Your task to perform on an android device: make emails show in primary in the gmail app Image 0: 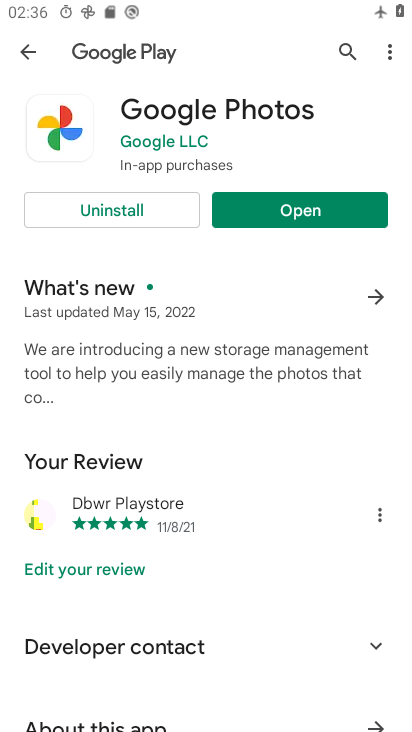
Step 0: press home button
Your task to perform on an android device: make emails show in primary in the gmail app Image 1: 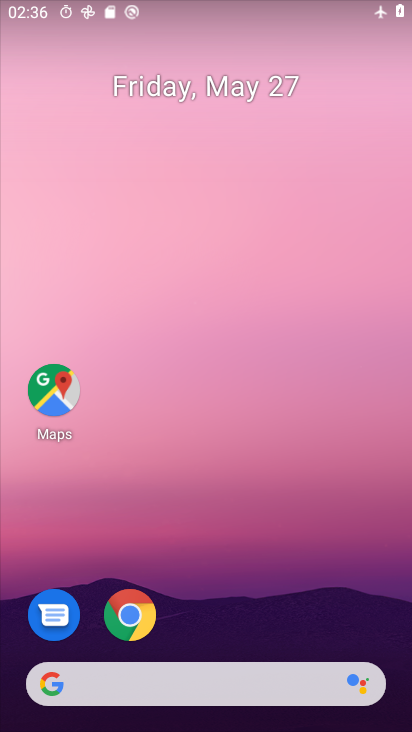
Step 1: drag from (370, 637) to (388, 241)
Your task to perform on an android device: make emails show in primary in the gmail app Image 2: 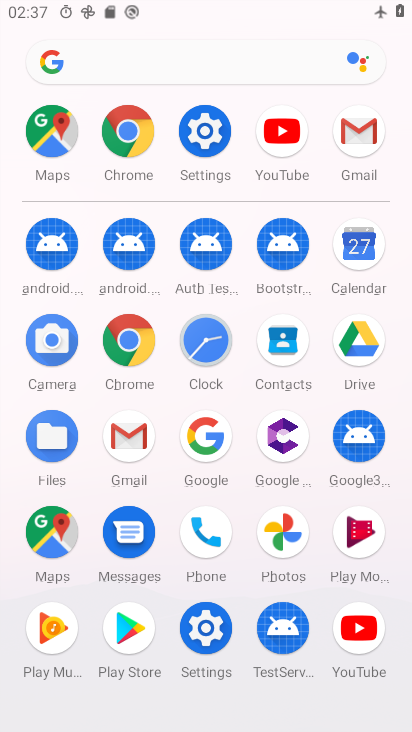
Step 2: click (118, 443)
Your task to perform on an android device: make emails show in primary in the gmail app Image 3: 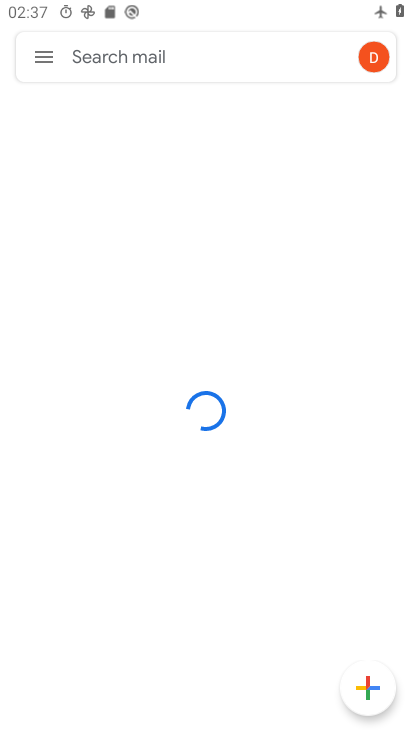
Step 3: click (43, 66)
Your task to perform on an android device: make emails show in primary in the gmail app Image 4: 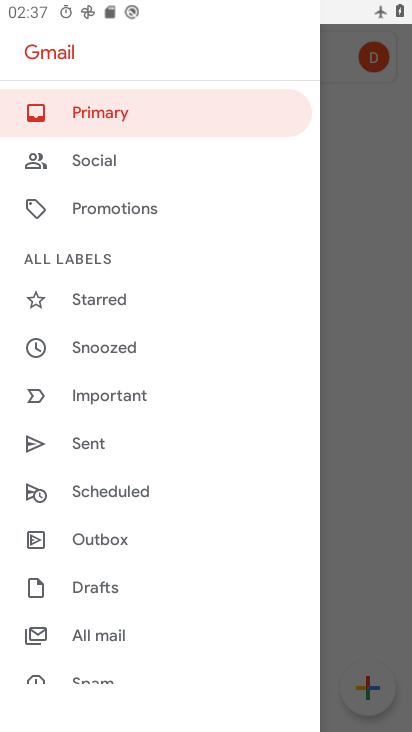
Step 4: drag from (186, 398) to (209, 293)
Your task to perform on an android device: make emails show in primary in the gmail app Image 5: 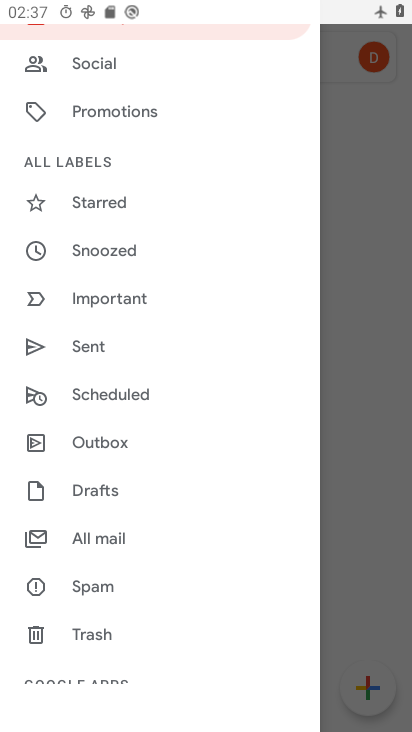
Step 5: drag from (220, 427) to (230, 333)
Your task to perform on an android device: make emails show in primary in the gmail app Image 6: 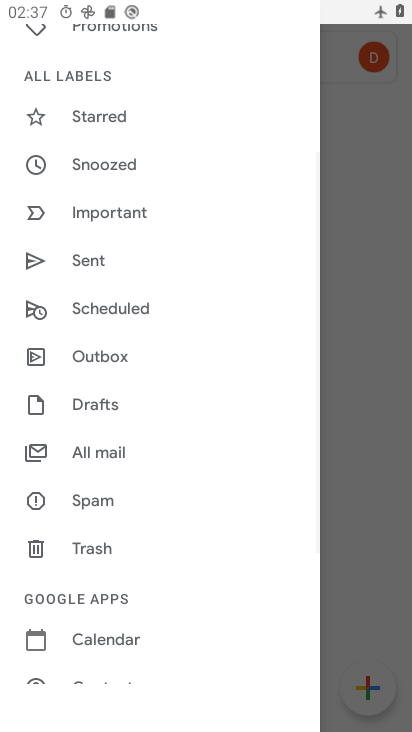
Step 6: drag from (227, 423) to (227, 337)
Your task to perform on an android device: make emails show in primary in the gmail app Image 7: 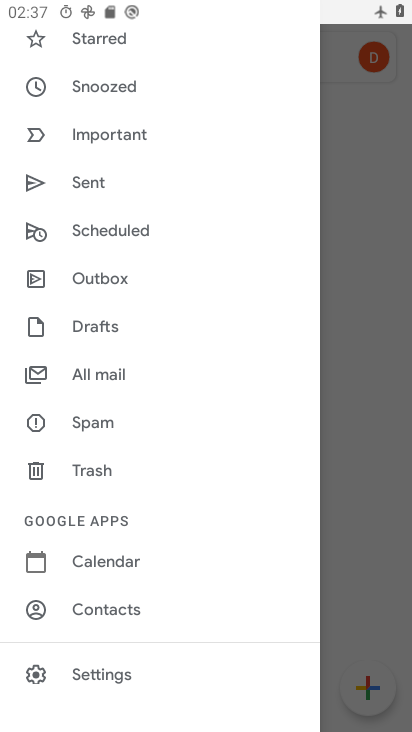
Step 7: drag from (229, 441) to (234, 364)
Your task to perform on an android device: make emails show in primary in the gmail app Image 8: 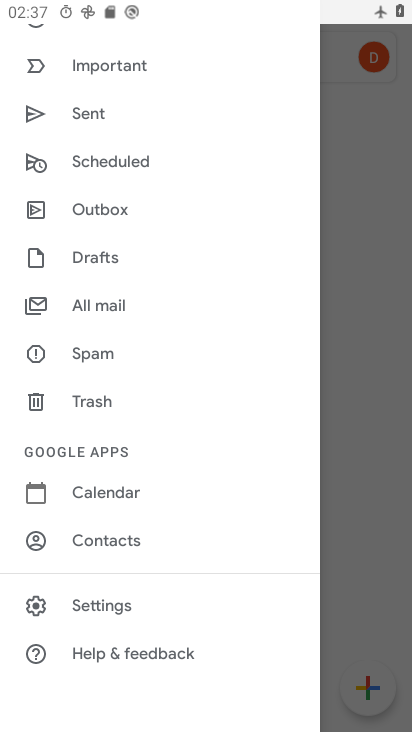
Step 8: drag from (227, 459) to (233, 328)
Your task to perform on an android device: make emails show in primary in the gmail app Image 9: 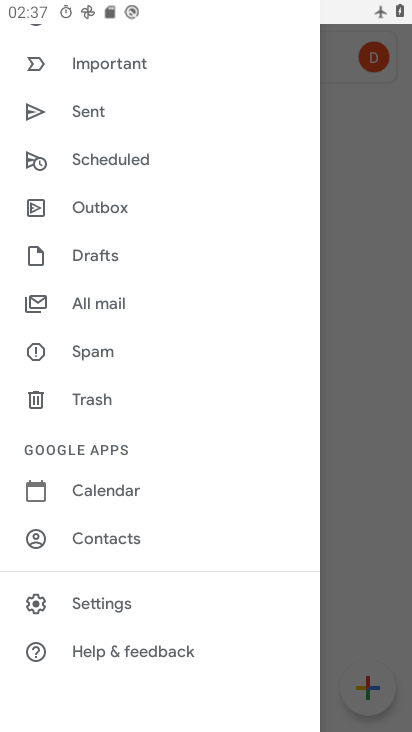
Step 9: click (133, 611)
Your task to perform on an android device: make emails show in primary in the gmail app Image 10: 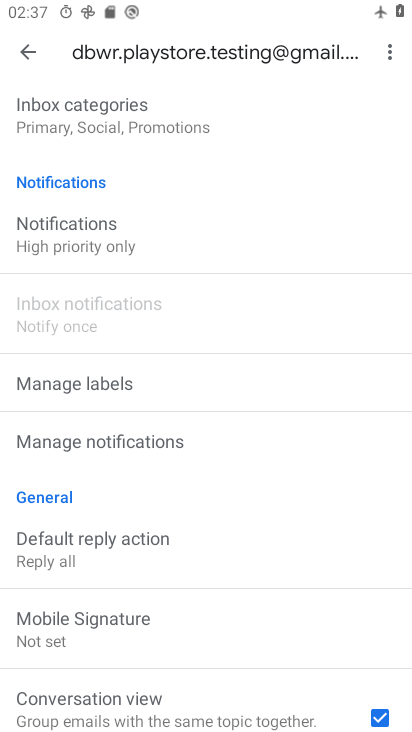
Step 10: drag from (289, 259) to (288, 373)
Your task to perform on an android device: make emails show in primary in the gmail app Image 11: 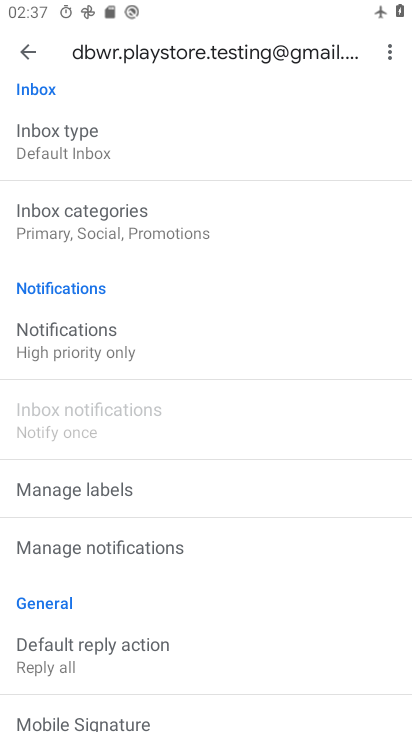
Step 11: drag from (282, 225) to (278, 348)
Your task to perform on an android device: make emails show in primary in the gmail app Image 12: 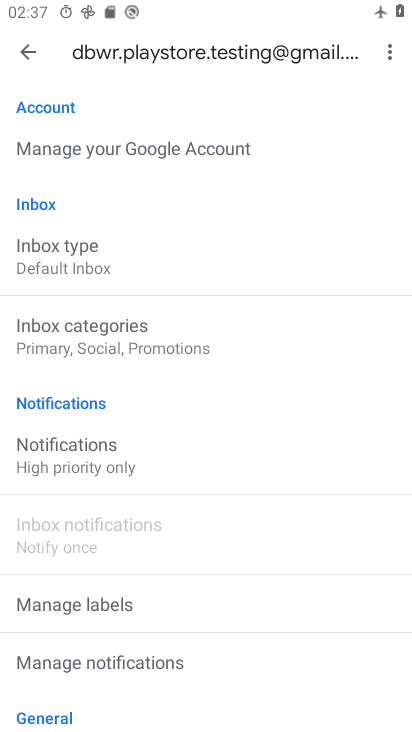
Step 12: drag from (287, 300) to (293, 427)
Your task to perform on an android device: make emails show in primary in the gmail app Image 13: 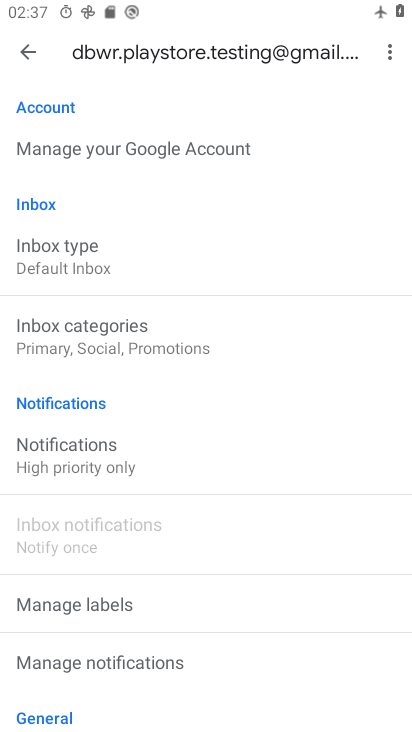
Step 13: click (182, 350)
Your task to perform on an android device: make emails show in primary in the gmail app Image 14: 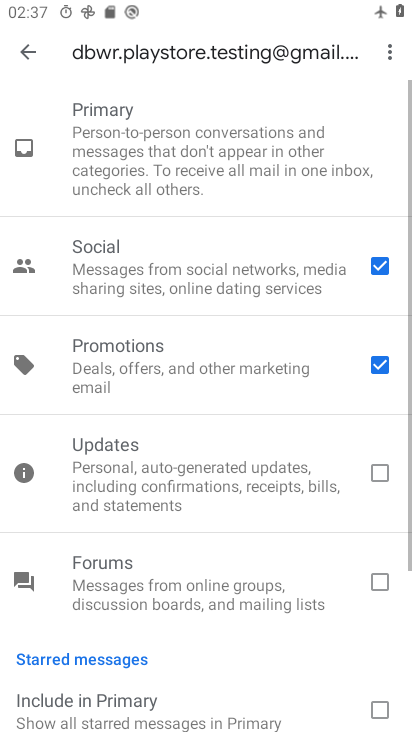
Step 14: click (365, 361)
Your task to perform on an android device: make emails show in primary in the gmail app Image 15: 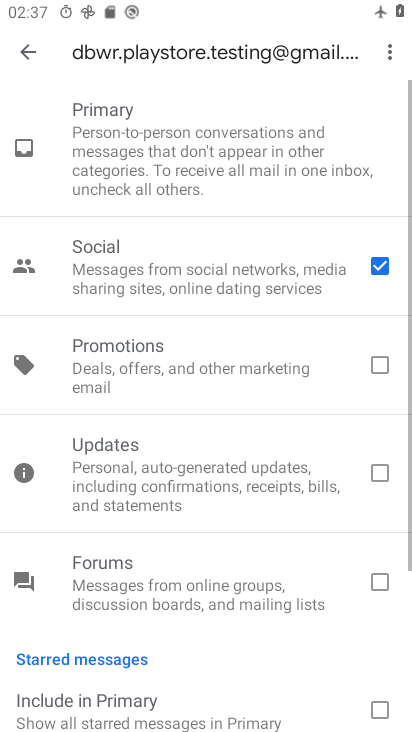
Step 15: click (382, 271)
Your task to perform on an android device: make emails show in primary in the gmail app Image 16: 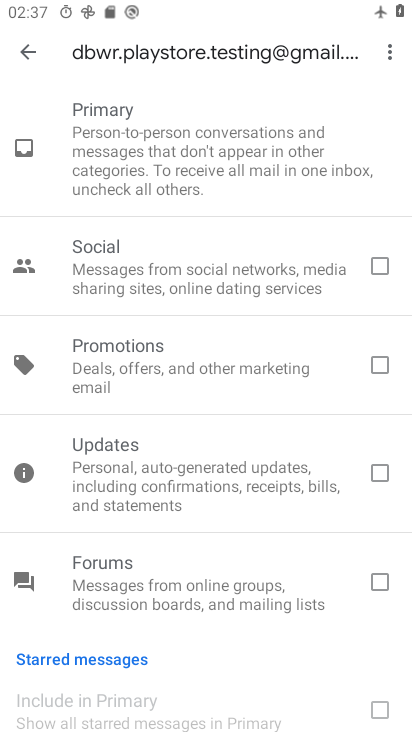
Step 16: task complete